Your task to perform on an android device: Go to accessibility settings Image 0: 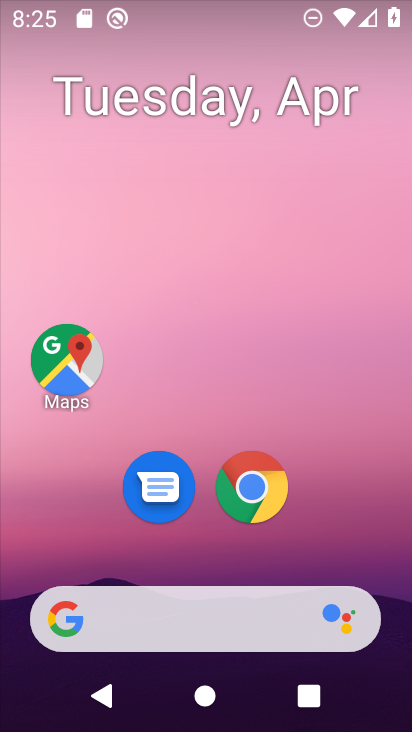
Step 0: drag from (180, 585) to (292, 184)
Your task to perform on an android device: Go to accessibility settings Image 1: 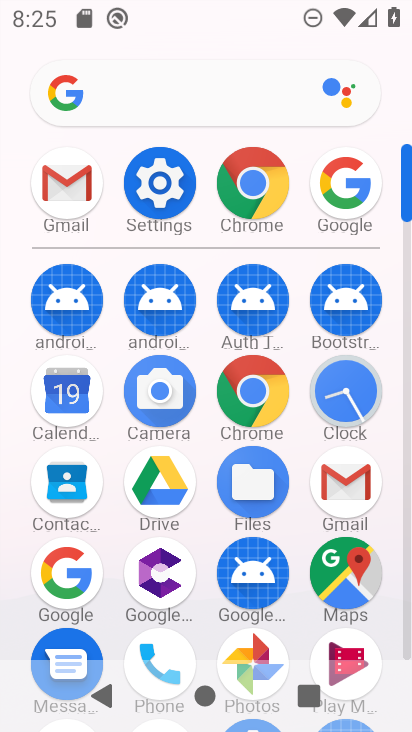
Step 1: click (165, 187)
Your task to perform on an android device: Go to accessibility settings Image 2: 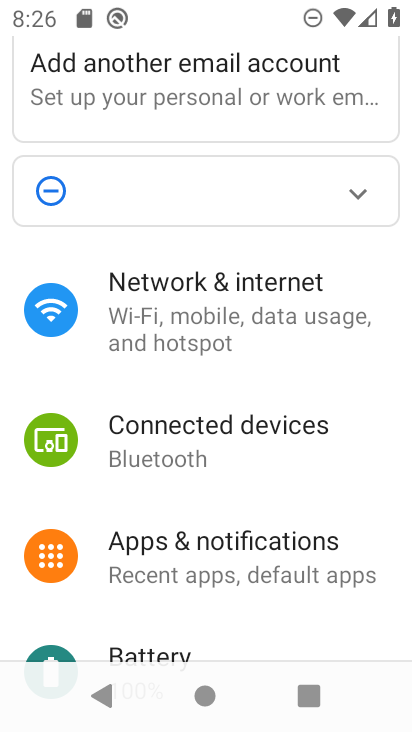
Step 2: drag from (218, 627) to (212, 229)
Your task to perform on an android device: Go to accessibility settings Image 3: 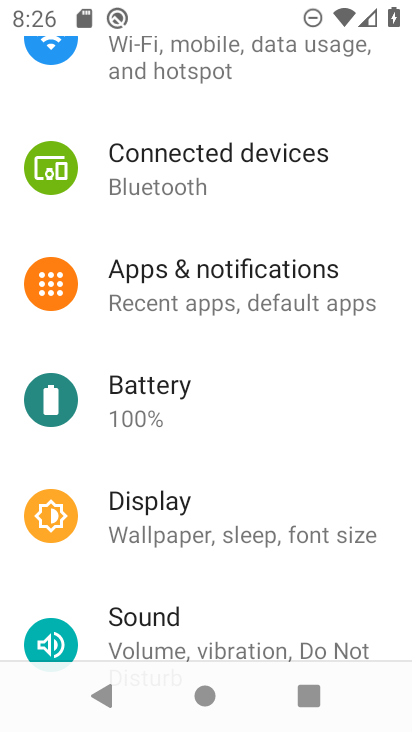
Step 3: drag from (199, 623) to (210, 296)
Your task to perform on an android device: Go to accessibility settings Image 4: 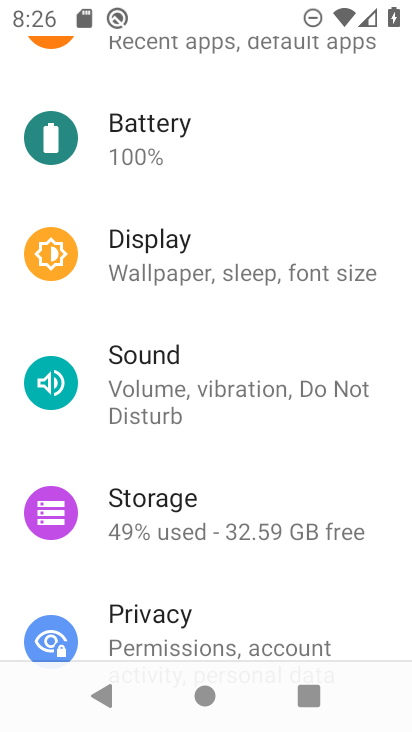
Step 4: drag from (226, 639) to (254, 294)
Your task to perform on an android device: Go to accessibility settings Image 5: 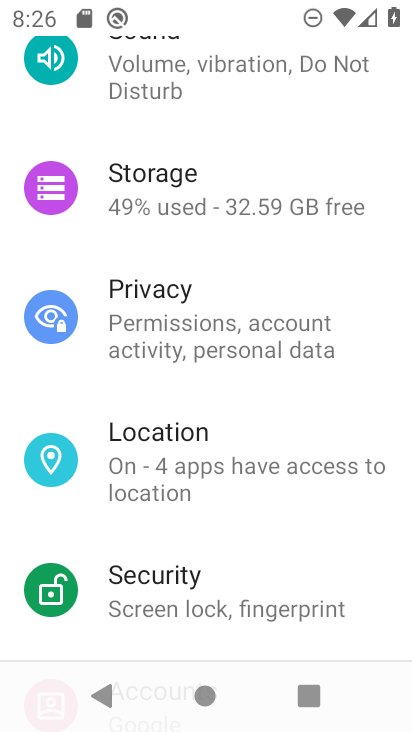
Step 5: drag from (204, 622) to (227, 279)
Your task to perform on an android device: Go to accessibility settings Image 6: 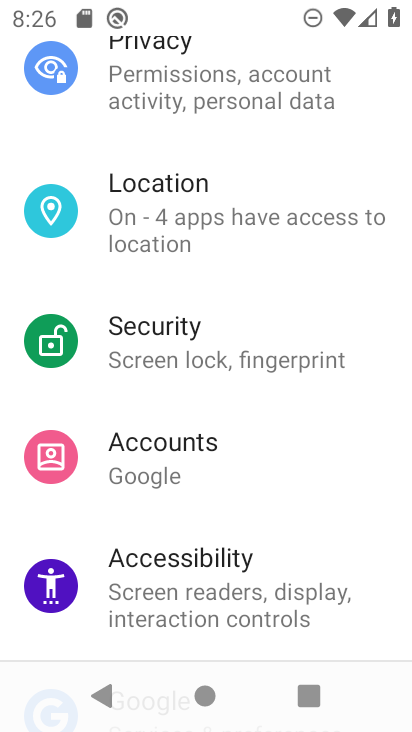
Step 6: click (192, 575)
Your task to perform on an android device: Go to accessibility settings Image 7: 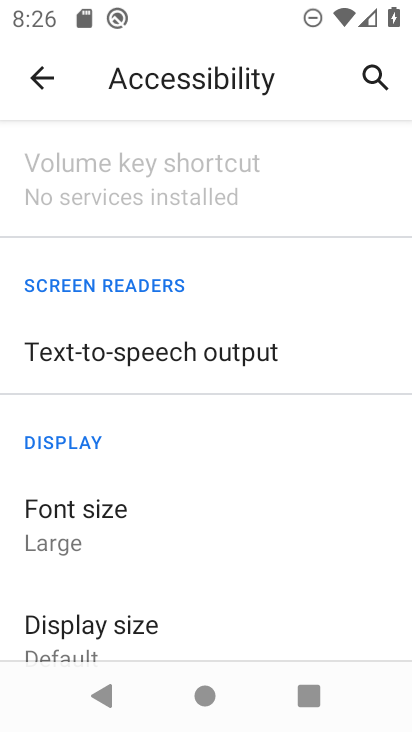
Step 7: task complete